Your task to perform on an android device: View the shopping cart on ebay.com. Add macbook pro to the cart on ebay.com Image 0: 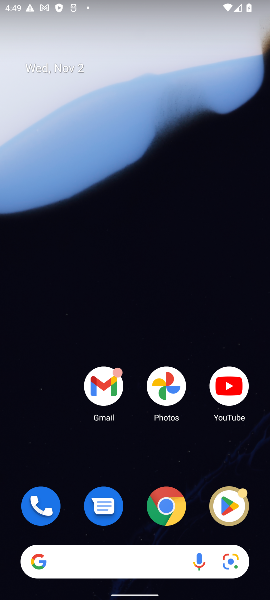
Step 0: click (176, 517)
Your task to perform on an android device: View the shopping cart on ebay.com. Add macbook pro to the cart on ebay.com Image 1: 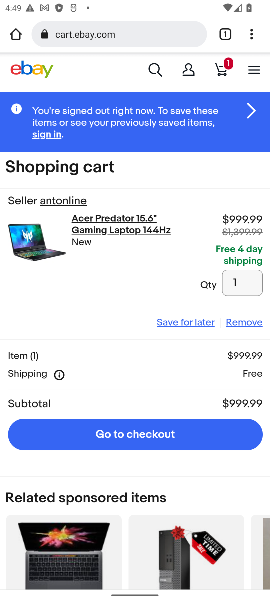
Step 1: click (160, 22)
Your task to perform on an android device: View the shopping cart on ebay.com. Add macbook pro to the cart on ebay.com Image 2: 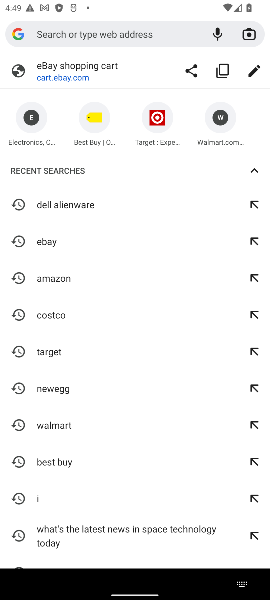
Step 2: type "ebay.com"
Your task to perform on an android device: View the shopping cart on ebay.com. Add macbook pro to the cart on ebay.com Image 3: 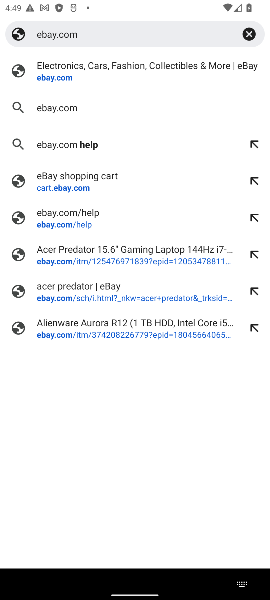
Step 3: click (163, 52)
Your task to perform on an android device: View the shopping cart on ebay.com. Add macbook pro to the cart on ebay.com Image 4: 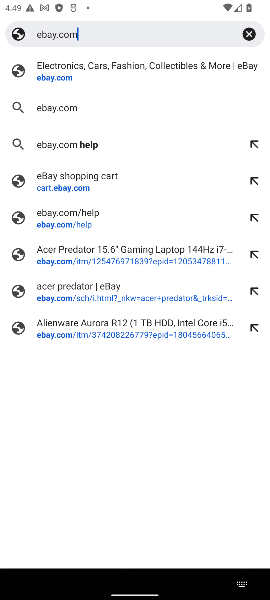
Step 4: click (152, 69)
Your task to perform on an android device: View the shopping cart on ebay.com. Add macbook pro to the cart on ebay.com Image 5: 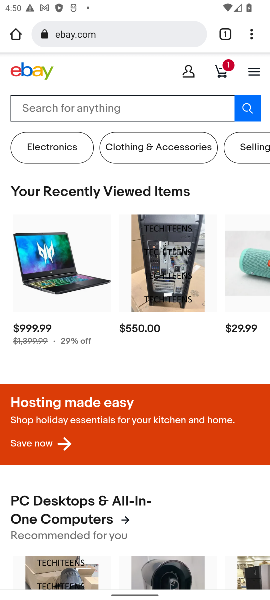
Step 5: click (167, 109)
Your task to perform on an android device: View the shopping cart on ebay.com. Add macbook pro to the cart on ebay.com Image 6: 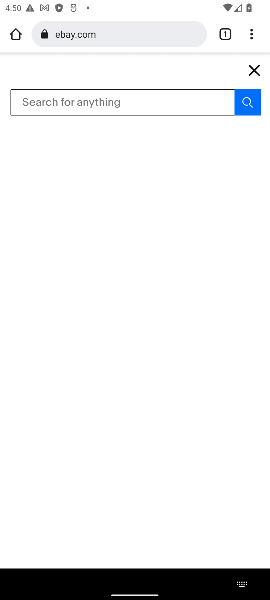
Step 6: type "macbook pro"
Your task to perform on an android device: View the shopping cart on ebay.com. Add macbook pro to the cart on ebay.com Image 7: 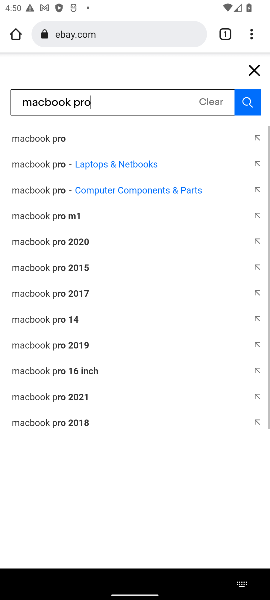
Step 7: press enter
Your task to perform on an android device: View the shopping cart on ebay.com. Add macbook pro to the cart on ebay.com Image 8: 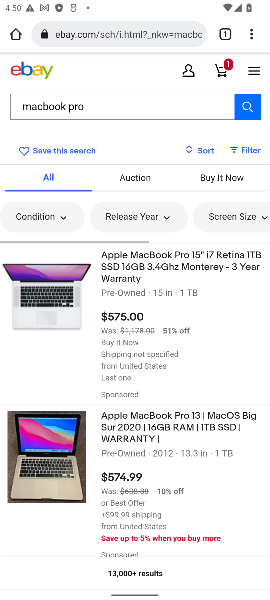
Step 8: click (74, 306)
Your task to perform on an android device: View the shopping cart on ebay.com. Add macbook pro to the cart on ebay.com Image 9: 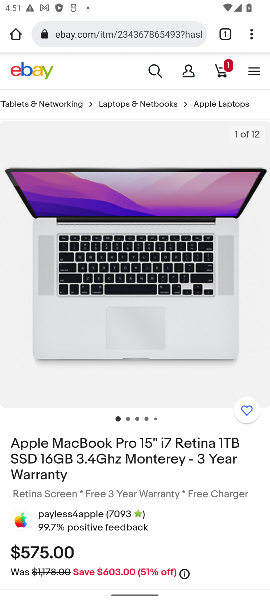
Step 9: drag from (168, 554) to (108, 271)
Your task to perform on an android device: View the shopping cart on ebay.com. Add macbook pro to the cart on ebay.com Image 10: 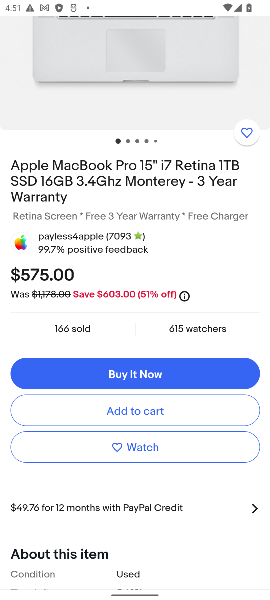
Step 10: click (182, 418)
Your task to perform on an android device: View the shopping cart on ebay.com. Add macbook pro to the cart on ebay.com Image 11: 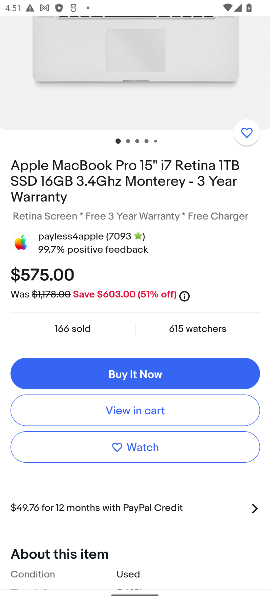
Step 11: task complete